Your task to perform on an android device: turn on wifi Image 0: 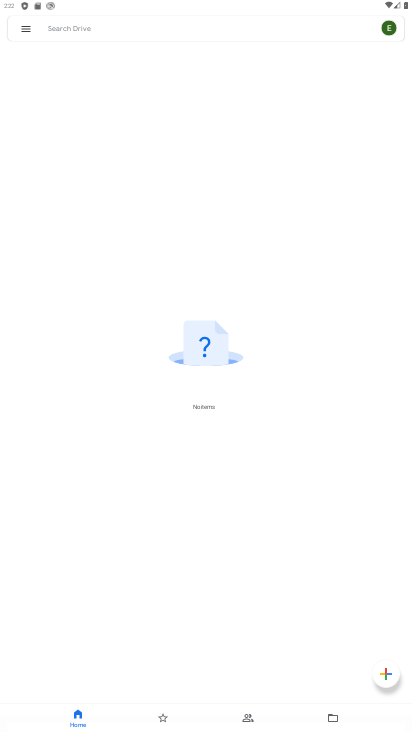
Step 0: press home button
Your task to perform on an android device: turn on wifi Image 1: 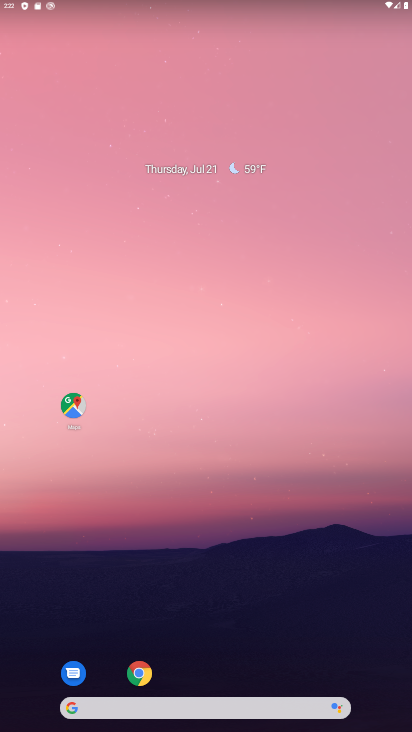
Step 1: drag from (367, 669) to (332, 164)
Your task to perform on an android device: turn on wifi Image 2: 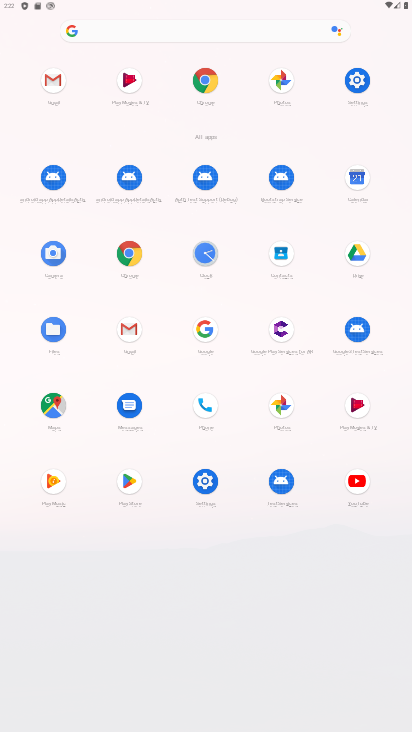
Step 2: click (205, 483)
Your task to perform on an android device: turn on wifi Image 3: 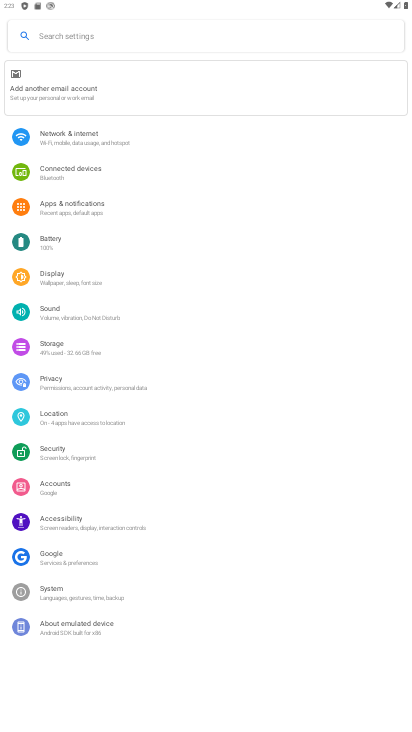
Step 3: click (63, 134)
Your task to perform on an android device: turn on wifi Image 4: 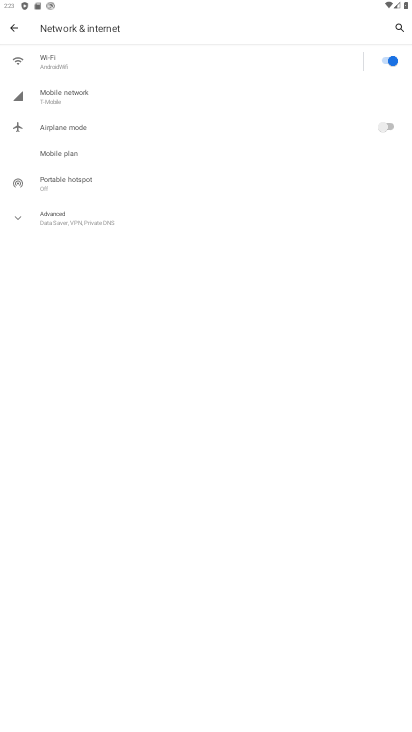
Step 4: task complete